Your task to perform on an android device: check storage Image 0: 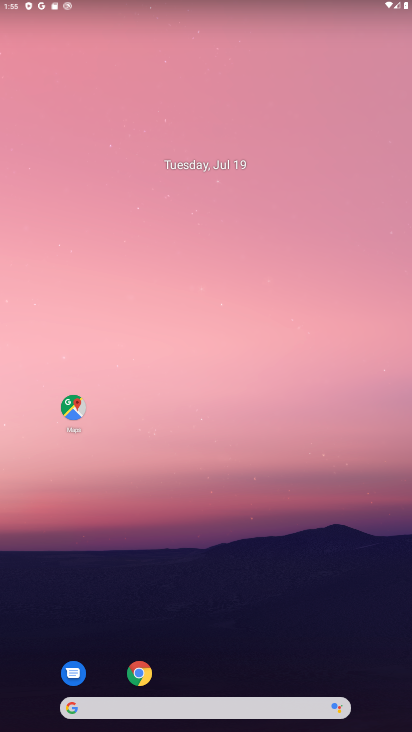
Step 0: drag from (306, 645) to (266, 7)
Your task to perform on an android device: check storage Image 1: 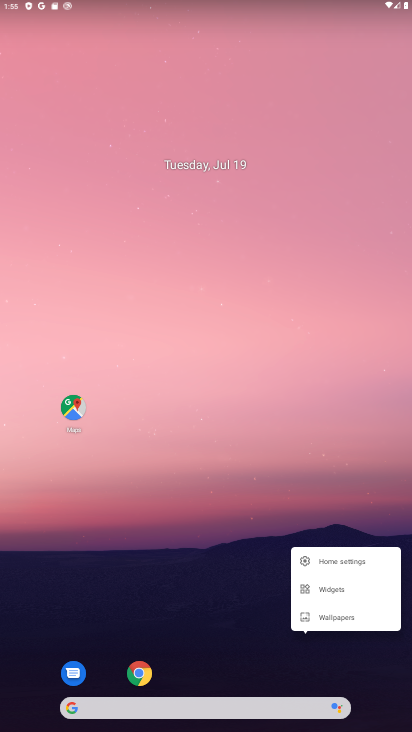
Step 1: drag from (247, 658) to (368, 102)
Your task to perform on an android device: check storage Image 2: 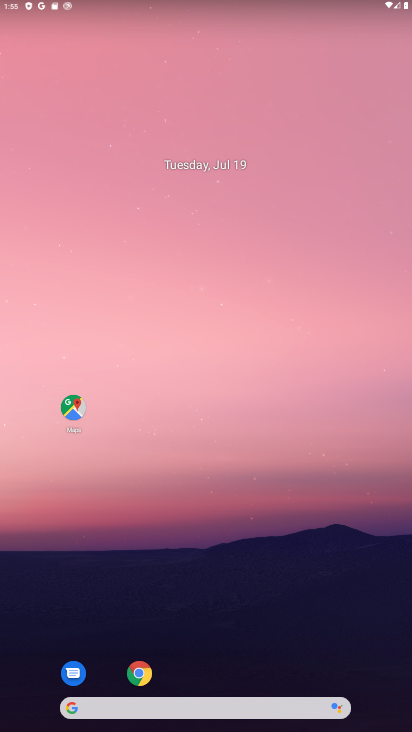
Step 2: drag from (394, 666) to (339, 204)
Your task to perform on an android device: check storage Image 3: 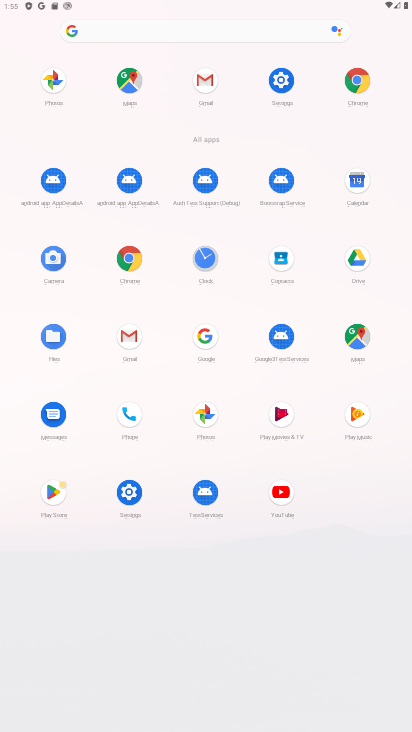
Step 3: click (280, 70)
Your task to perform on an android device: check storage Image 4: 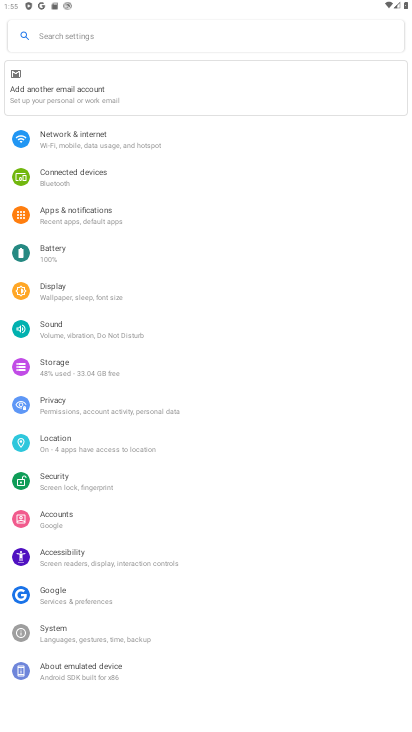
Step 4: click (144, 372)
Your task to perform on an android device: check storage Image 5: 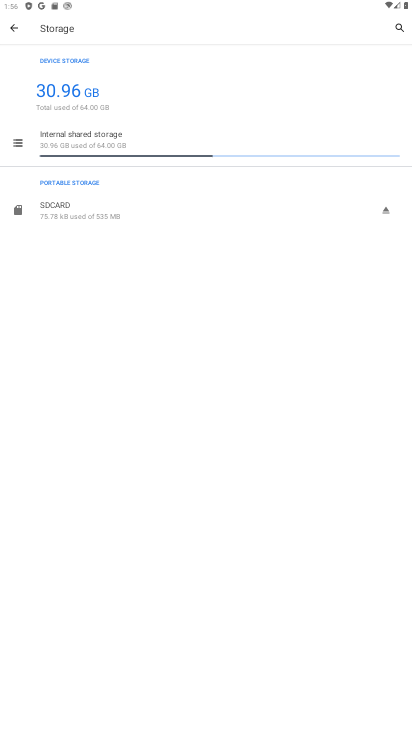
Step 5: task complete